Your task to perform on an android device: empty trash in the gmail app Image 0: 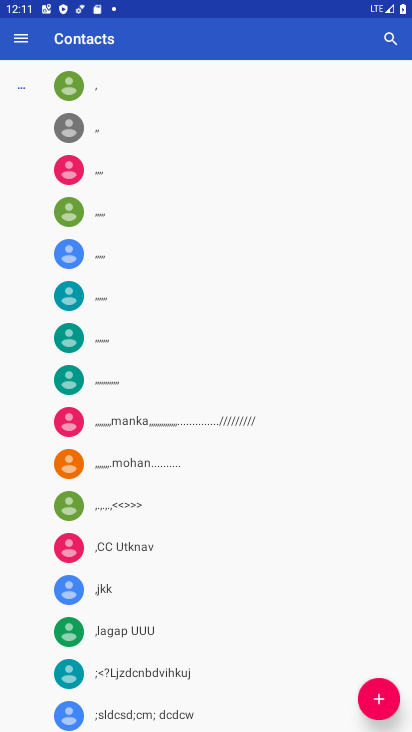
Step 0: press home button
Your task to perform on an android device: empty trash in the gmail app Image 1: 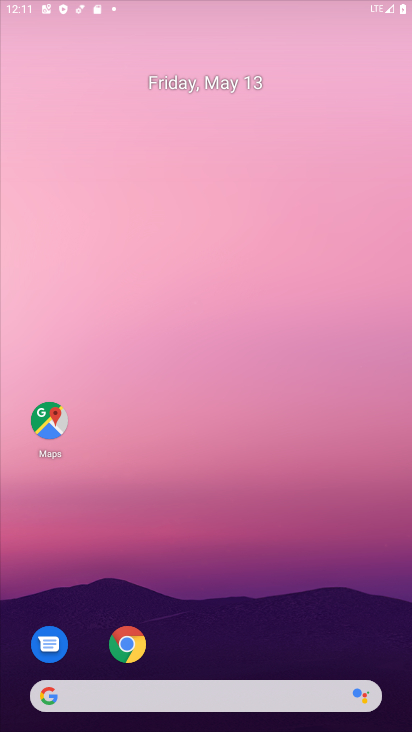
Step 1: drag from (370, 651) to (282, 126)
Your task to perform on an android device: empty trash in the gmail app Image 2: 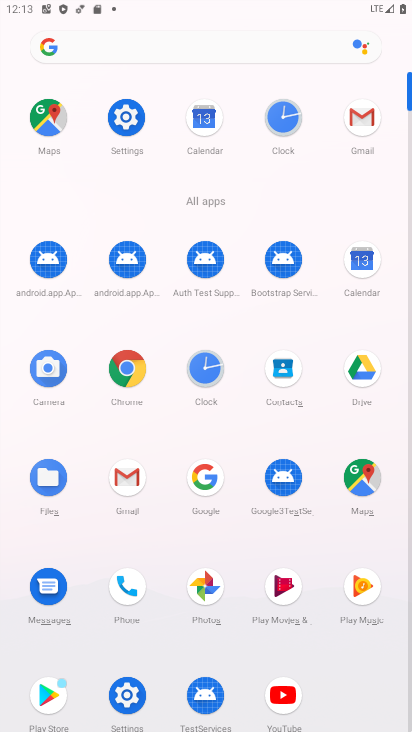
Step 2: click (137, 480)
Your task to perform on an android device: empty trash in the gmail app Image 3: 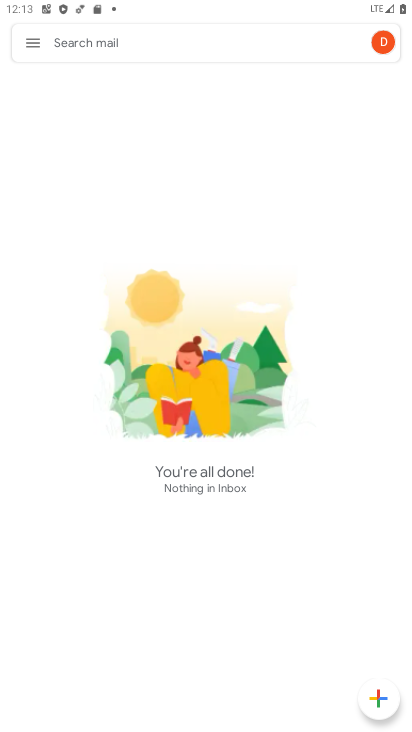
Step 3: click (15, 32)
Your task to perform on an android device: empty trash in the gmail app Image 4: 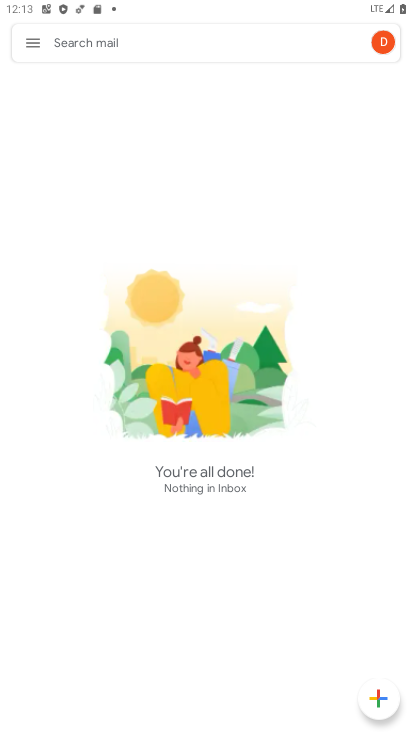
Step 4: click (29, 41)
Your task to perform on an android device: empty trash in the gmail app Image 5: 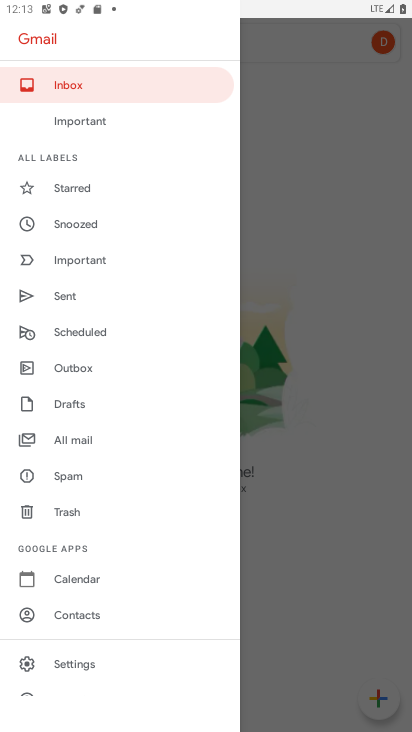
Step 5: click (73, 521)
Your task to perform on an android device: empty trash in the gmail app Image 6: 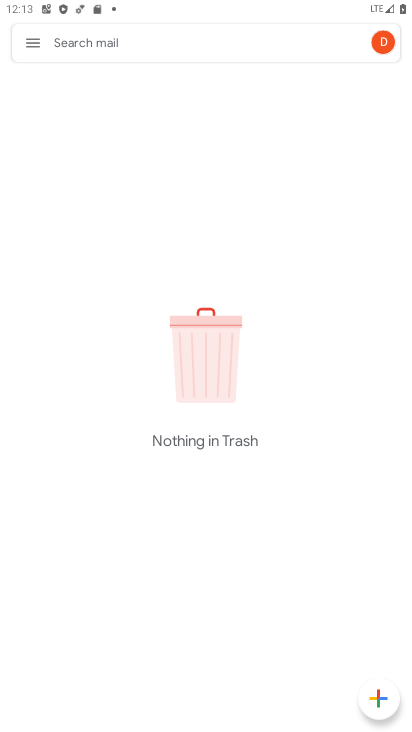
Step 6: task complete